Your task to perform on an android device: Go to notification settings Image 0: 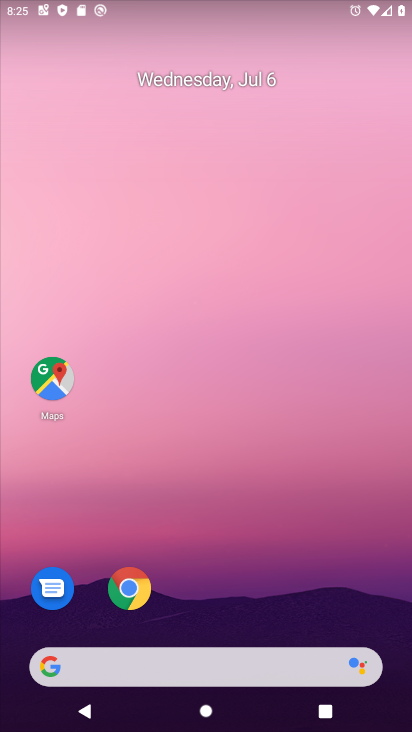
Step 0: drag from (236, 614) to (261, 197)
Your task to perform on an android device: Go to notification settings Image 1: 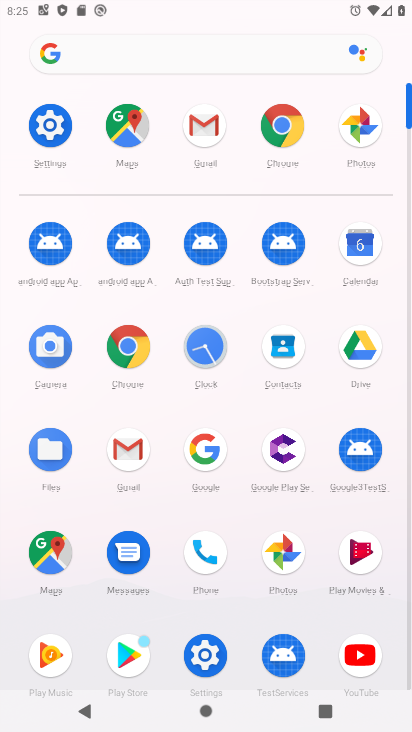
Step 1: click (54, 115)
Your task to perform on an android device: Go to notification settings Image 2: 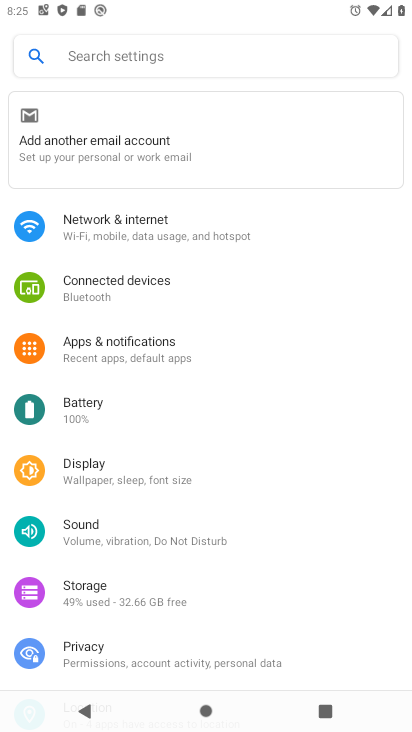
Step 2: click (145, 339)
Your task to perform on an android device: Go to notification settings Image 3: 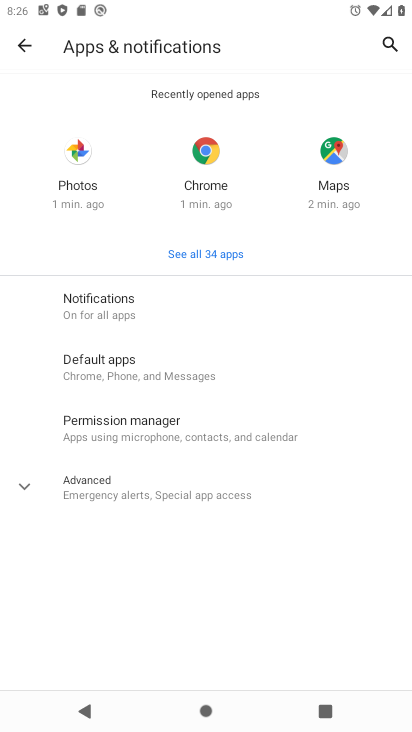
Step 3: click (188, 304)
Your task to perform on an android device: Go to notification settings Image 4: 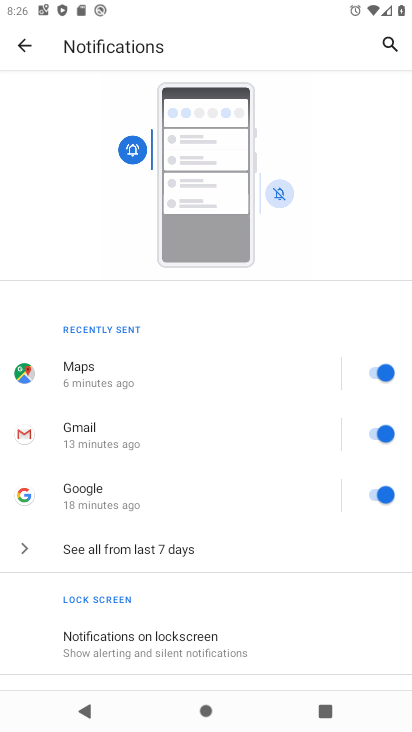
Step 4: click (150, 537)
Your task to perform on an android device: Go to notification settings Image 5: 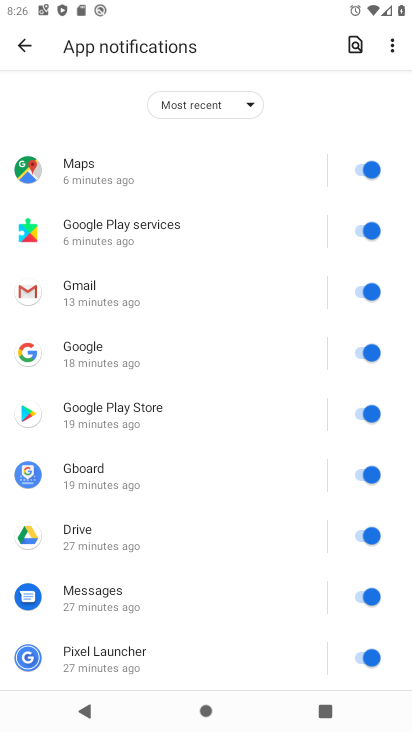
Step 5: task complete